Your task to perform on an android device: Go to calendar. Show me events next week Image 0: 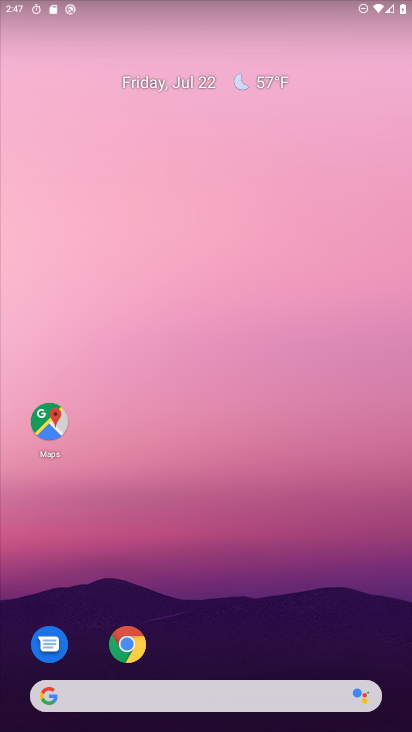
Step 0: drag from (220, 639) to (218, 219)
Your task to perform on an android device: Go to calendar. Show me events next week Image 1: 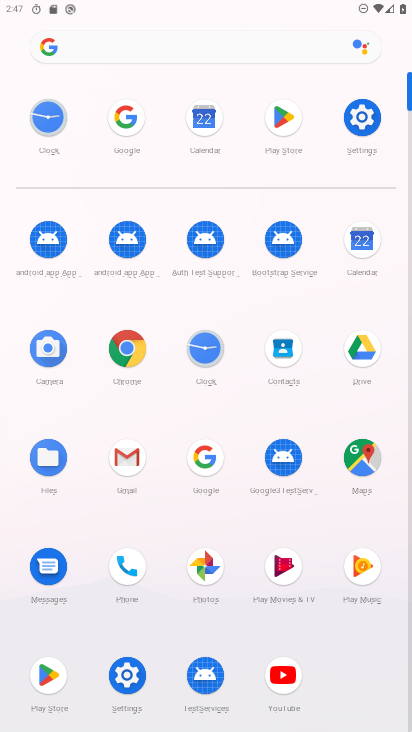
Step 1: click (356, 266)
Your task to perform on an android device: Go to calendar. Show me events next week Image 2: 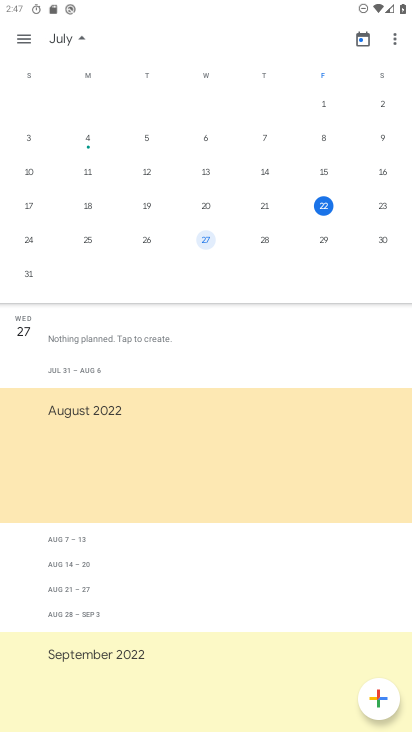
Step 2: drag from (356, 266) to (302, 395)
Your task to perform on an android device: Go to calendar. Show me events next week Image 3: 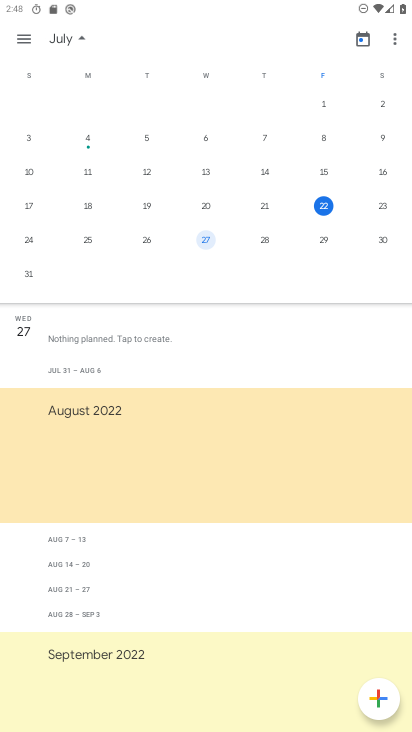
Step 3: click (35, 245)
Your task to perform on an android device: Go to calendar. Show me events next week Image 4: 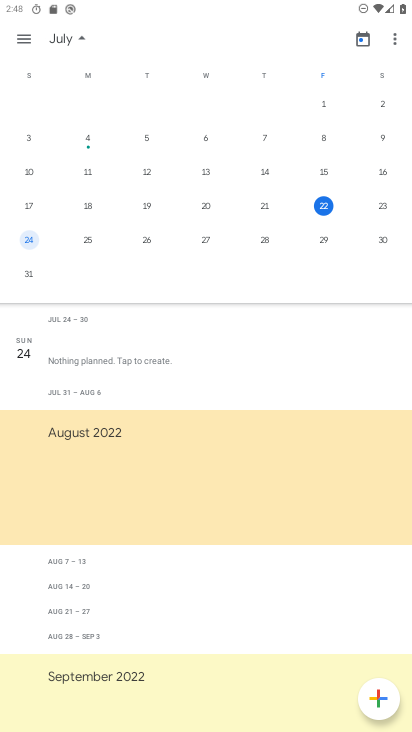
Step 4: click (79, 249)
Your task to perform on an android device: Go to calendar. Show me events next week Image 5: 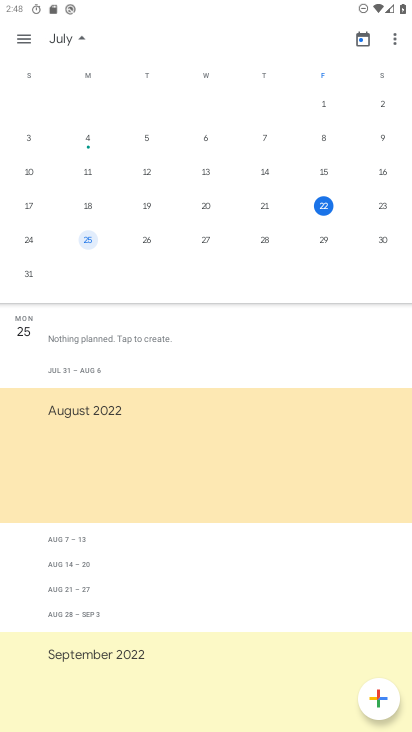
Step 5: click (26, 243)
Your task to perform on an android device: Go to calendar. Show me events next week Image 6: 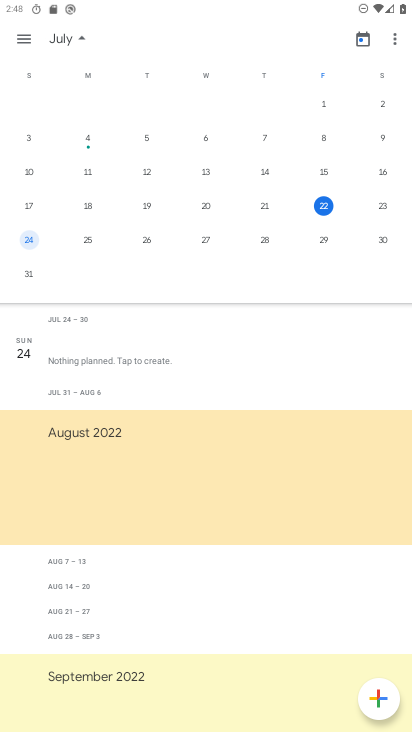
Step 6: task complete